Your task to perform on an android device: Open wifi settings Image 0: 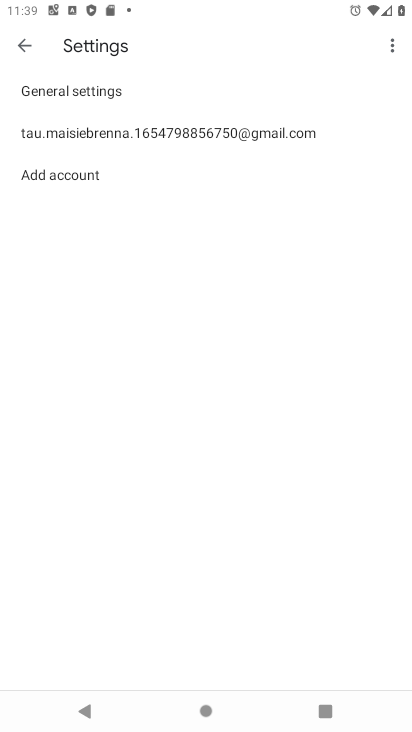
Step 0: press home button
Your task to perform on an android device: Open wifi settings Image 1: 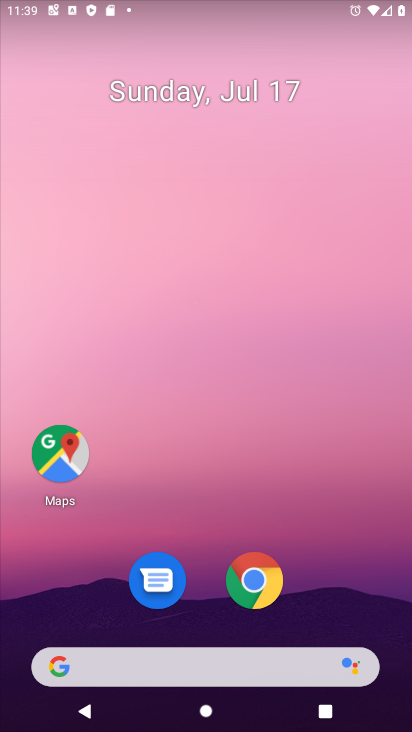
Step 1: drag from (220, 644) to (220, 139)
Your task to perform on an android device: Open wifi settings Image 2: 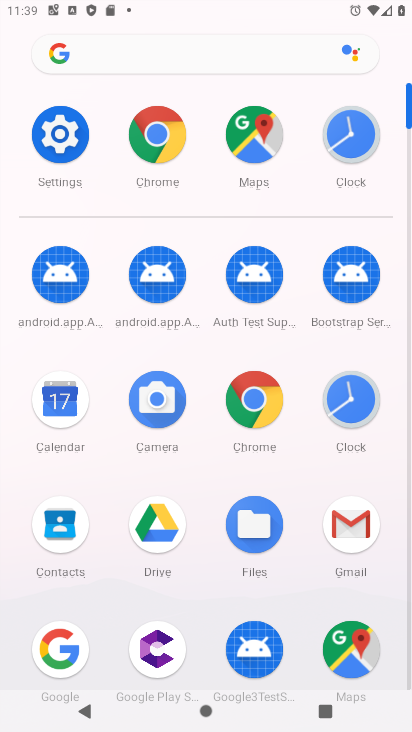
Step 2: click (71, 145)
Your task to perform on an android device: Open wifi settings Image 3: 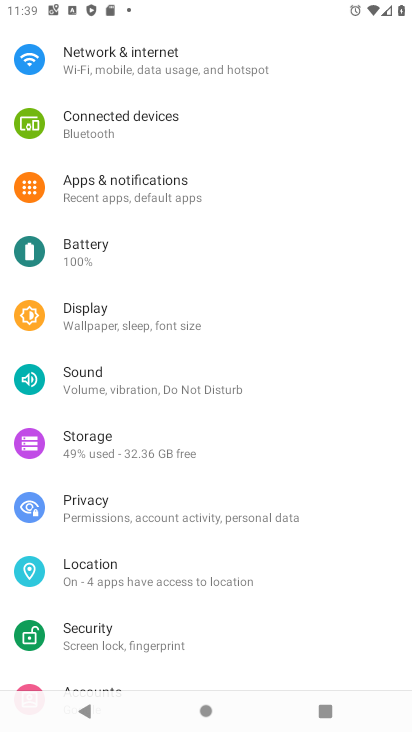
Step 3: drag from (179, 270) to (230, 653)
Your task to perform on an android device: Open wifi settings Image 4: 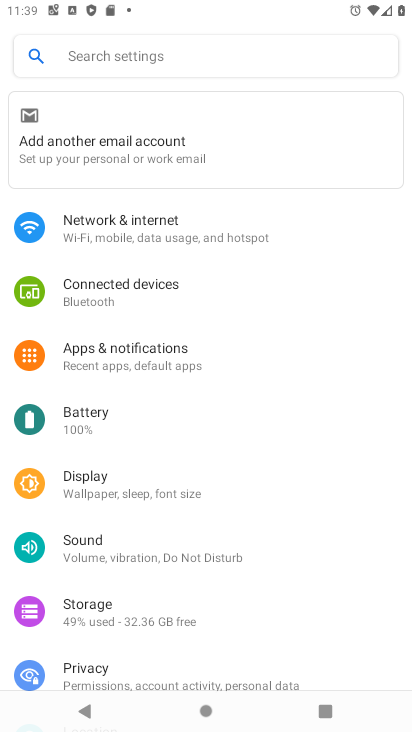
Step 4: click (224, 235)
Your task to perform on an android device: Open wifi settings Image 5: 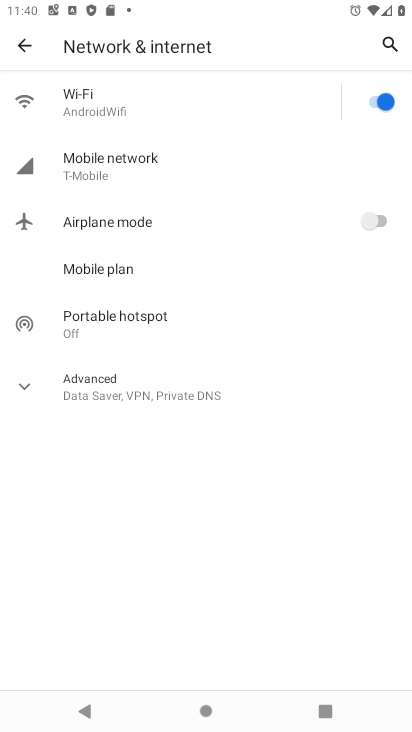
Step 5: click (176, 104)
Your task to perform on an android device: Open wifi settings Image 6: 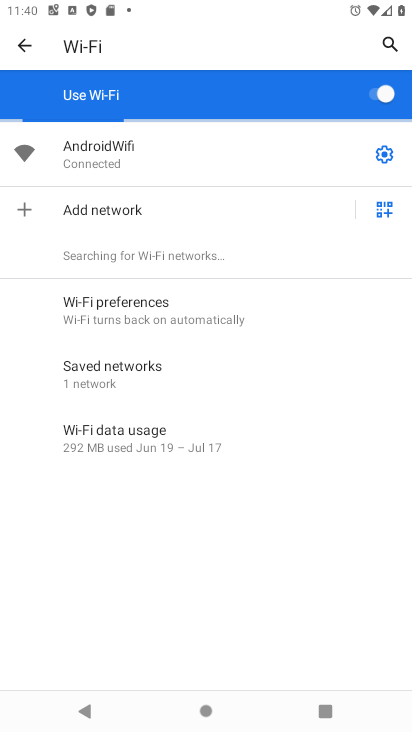
Step 6: task complete